Your task to perform on an android device: add a label to a message in the gmail app Image 0: 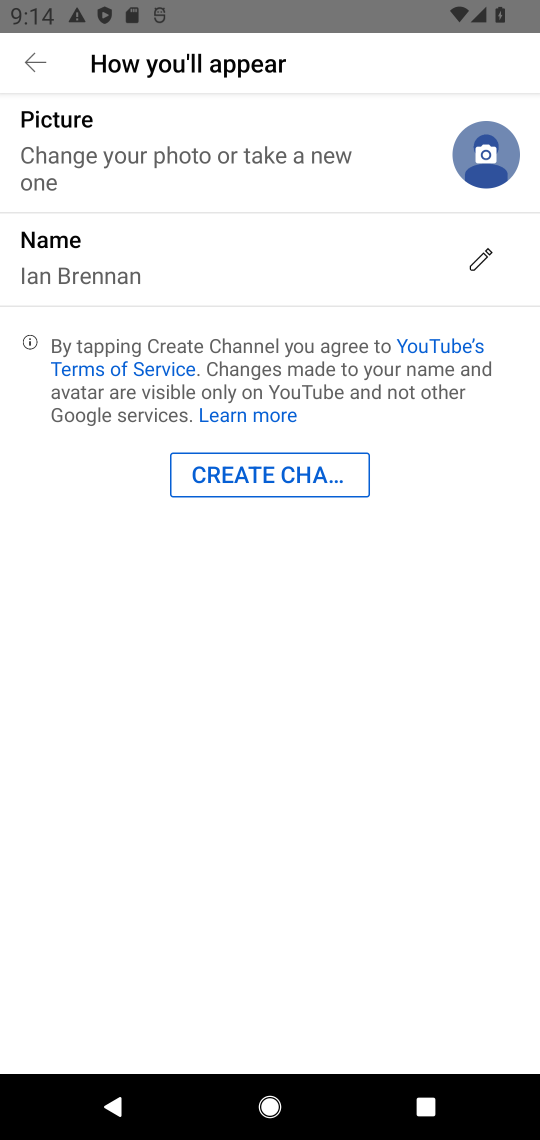
Step 0: press home button
Your task to perform on an android device: add a label to a message in the gmail app Image 1: 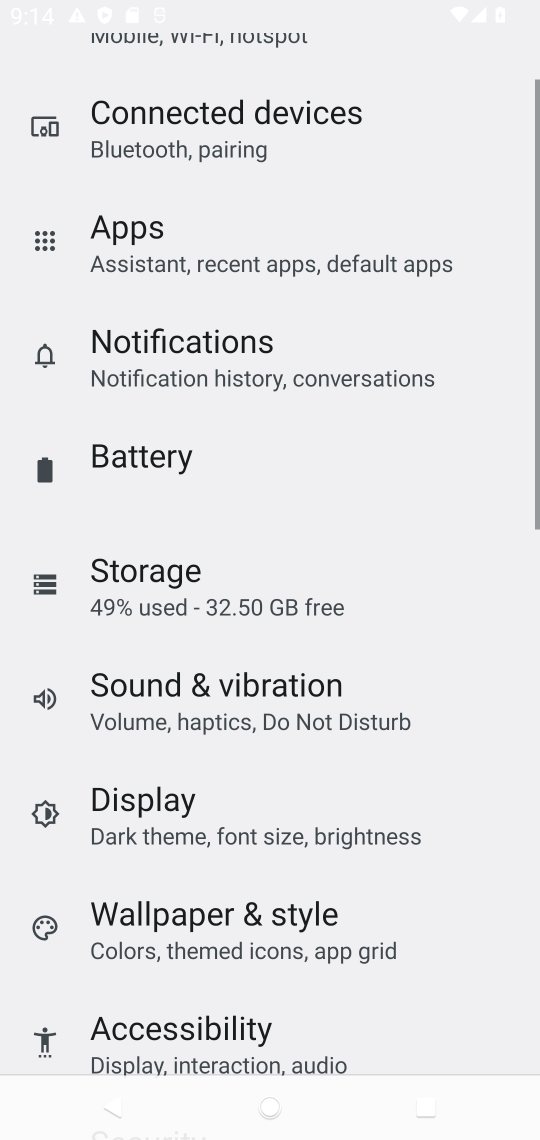
Step 1: click (294, 474)
Your task to perform on an android device: add a label to a message in the gmail app Image 2: 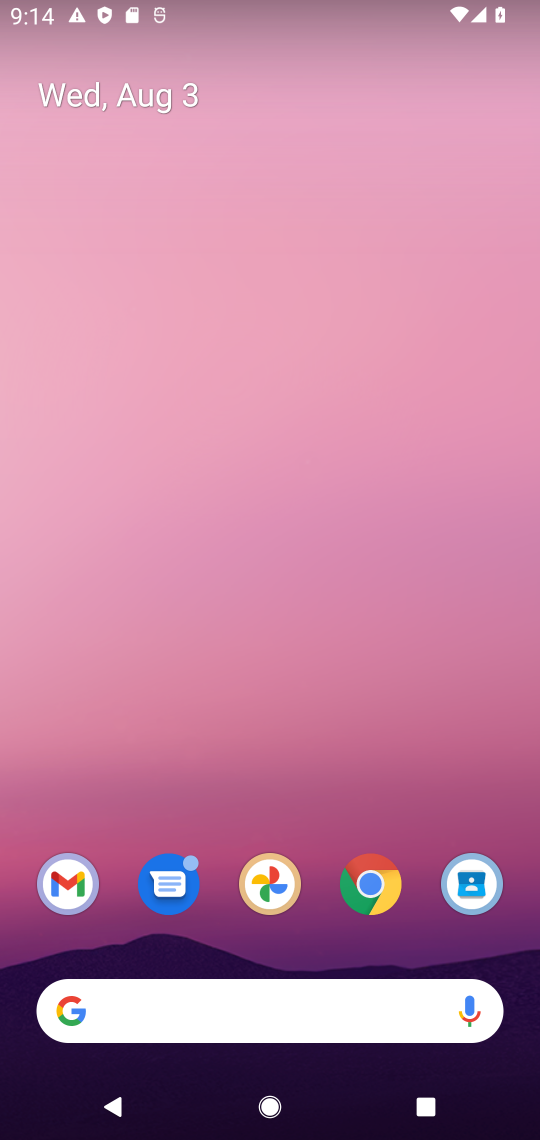
Step 2: drag from (228, 798) to (261, 568)
Your task to perform on an android device: add a label to a message in the gmail app Image 3: 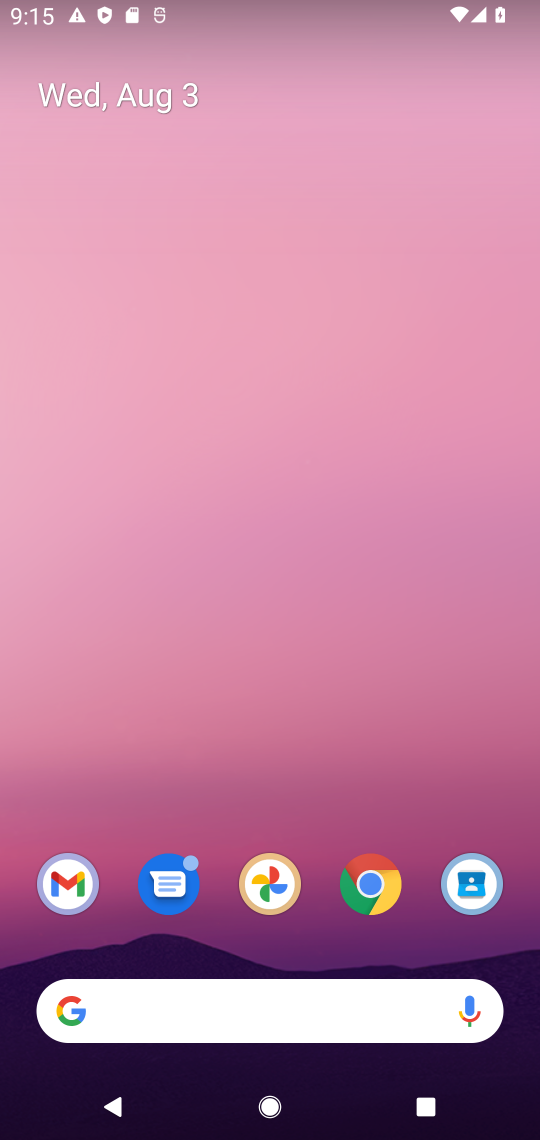
Step 3: drag from (266, 915) to (280, 102)
Your task to perform on an android device: add a label to a message in the gmail app Image 4: 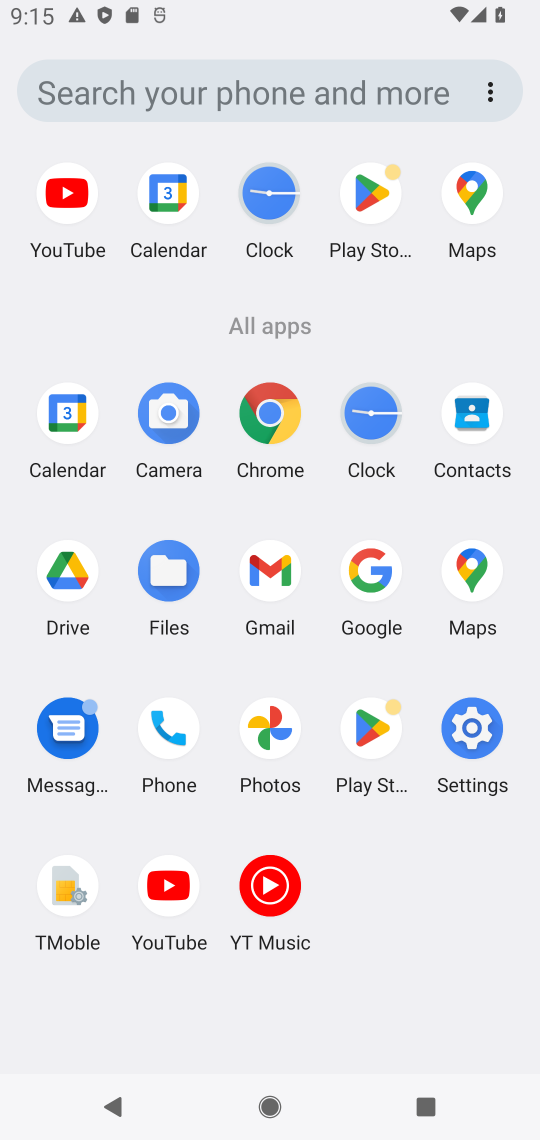
Step 4: click (247, 560)
Your task to perform on an android device: add a label to a message in the gmail app Image 5: 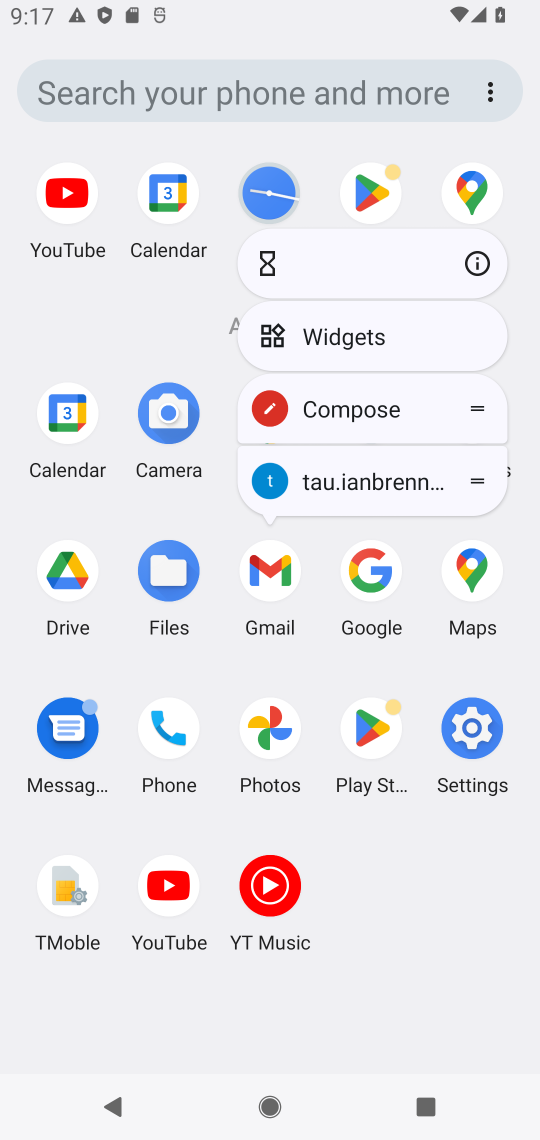
Step 5: click (275, 613)
Your task to perform on an android device: add a label to a message in the gmail app Image 6: 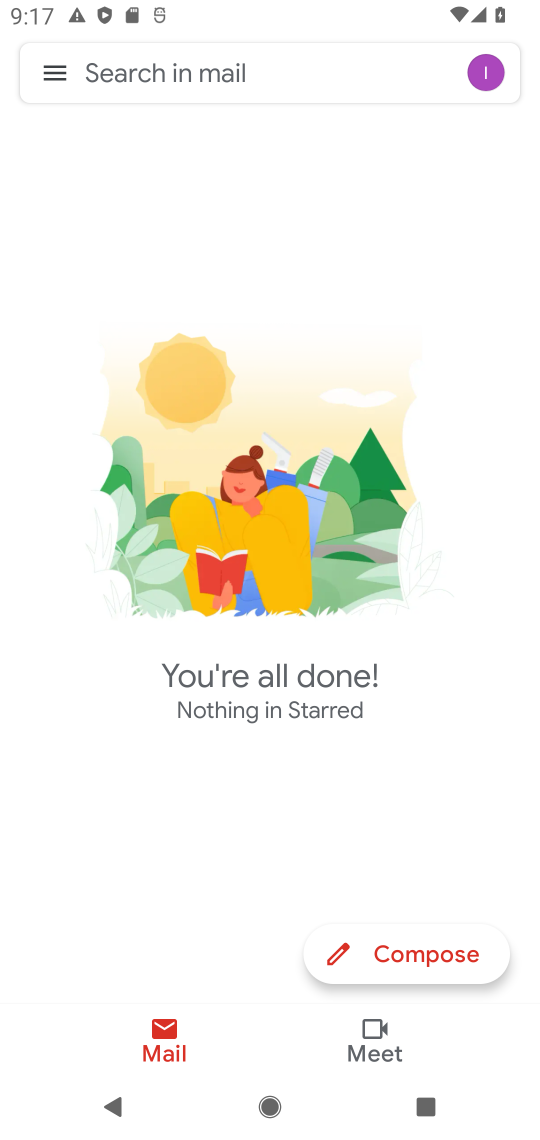
Step 6: task complete